Your task to perform on an android device: Search for vegetarian restaurants on Maps Image 0: 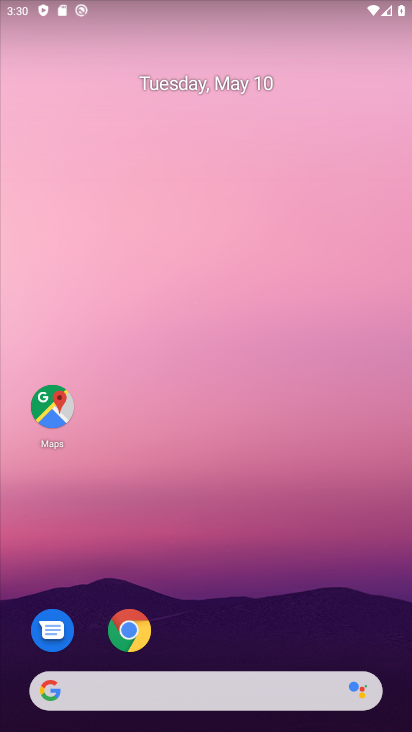
Step 0: click (45, 419)
Your task to perform on an android device: Search for vegetarian restaurants on Maps Image 1: 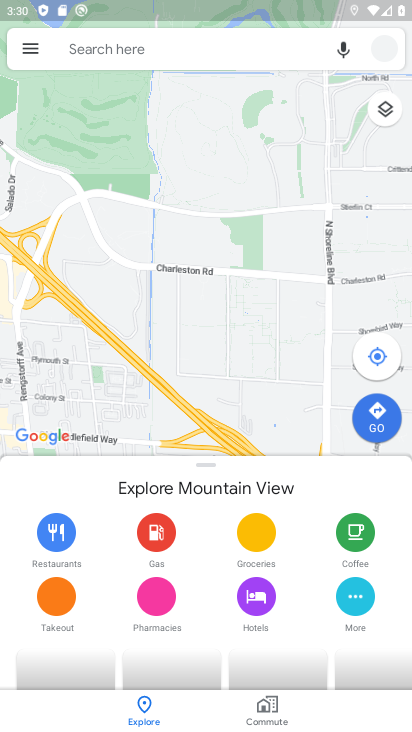
Step 1: click (176, 38)
Your task to perform on an android device: Search for vegetarian restaurants on Maps Image 2: 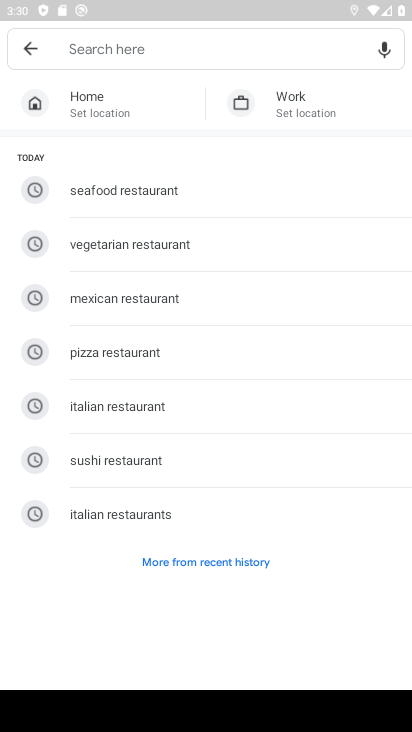
Step 2: click (189, 260)
Your task to perform on an android device: Search for vegetarian restaurants on Maps Image 3: 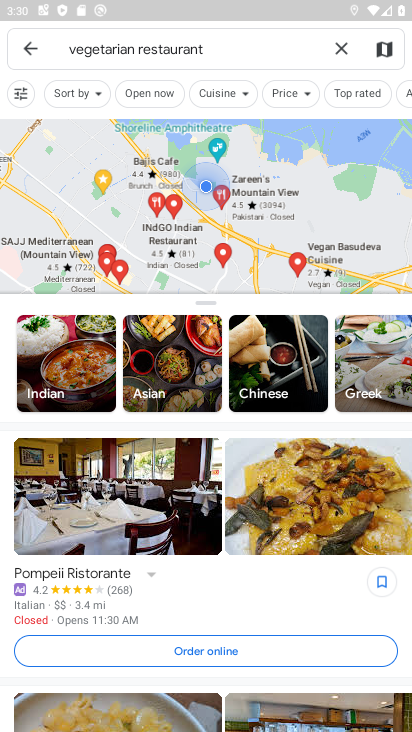
Step 3: task complete